Your task to perform on an android device: Open the calendar app, open the side menu, and click the "Day" option Image 0: 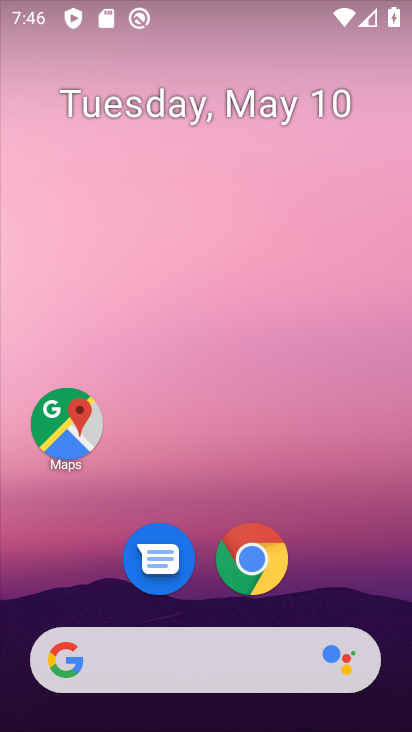
Step 0: drag from (279, 472) to (215, 57)
Your task to perform on an android device: Open the calendar app, open the side menu, and click the "Day" option Image 1: 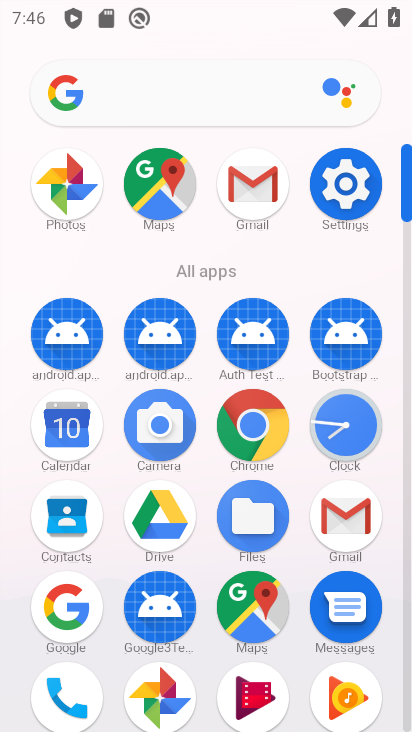
Step 1: click (74, 425)
Your task to perform on an android device: Open the calendar app, open the side menu, and click the "Day" option Image 2: 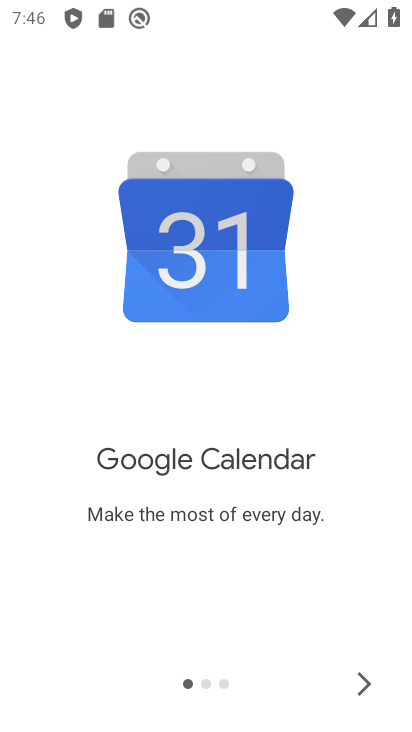
Step 2: click (363, 684)
Your task to perform on an android device: Open the calendar app, open the side menu, and click the "Day" option Image 3: 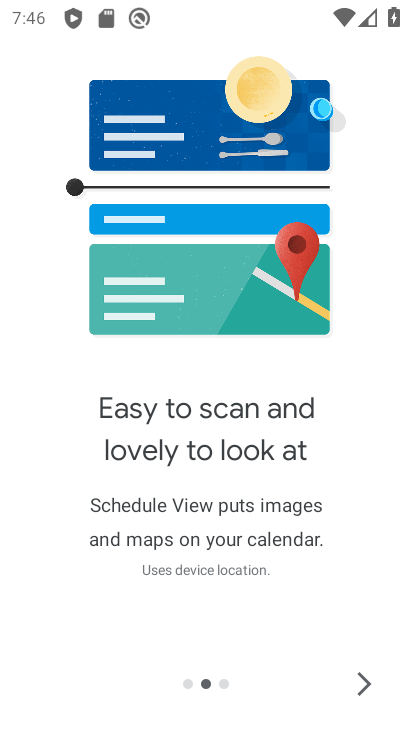
Step 3: click (363, 684)
Your task to perform on an android device: Open the calendar app, open the side menu, and click the "Day" option Image 4: 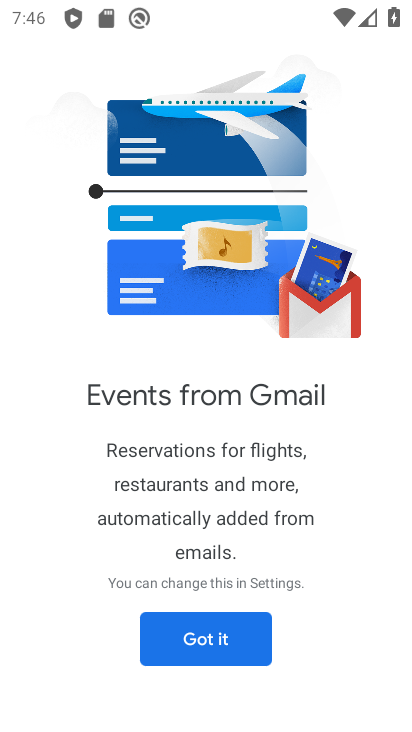
Step 4: click (249, 638)
Your task to perform on an android device: Open the calendar app, open the side menu, and click the "Day" option Image 5: 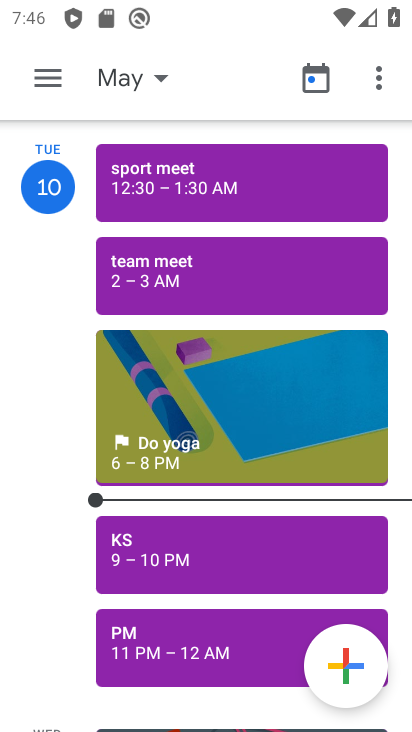
Step 5: click (48, 69)
Your task to perform on an android device: Open the calendar app, open the side menu, and click the "Day" option Image 6: 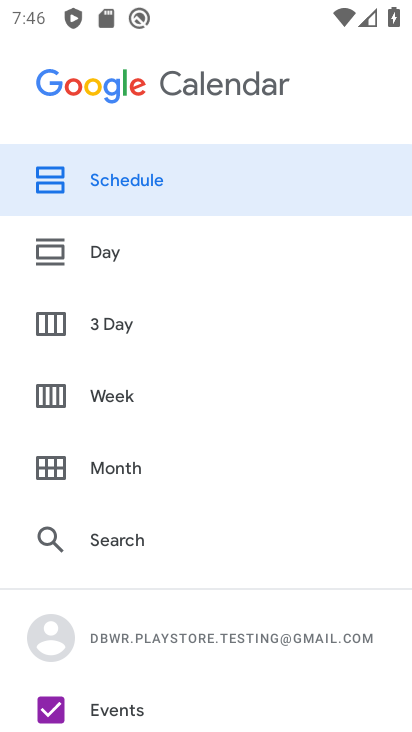
Step 6: click (118, 255)
Your task to perform on an android device: Open the calendar app, open the side menu, and click the "Day" option Image 7: 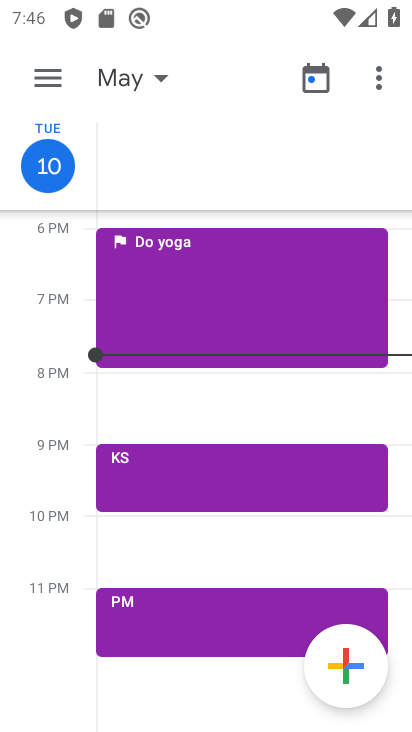
Step 7: task complete